Your task to perform on an android device: Open Amazon Image 0: 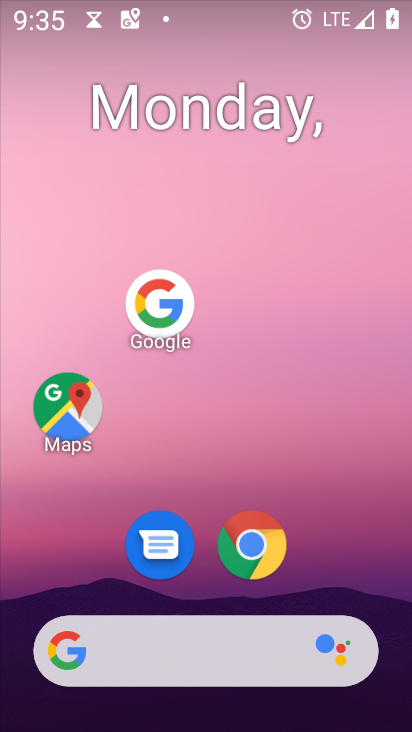
Step 0: press home button
Your task to perform on an android device: Open Amazon Image 1: 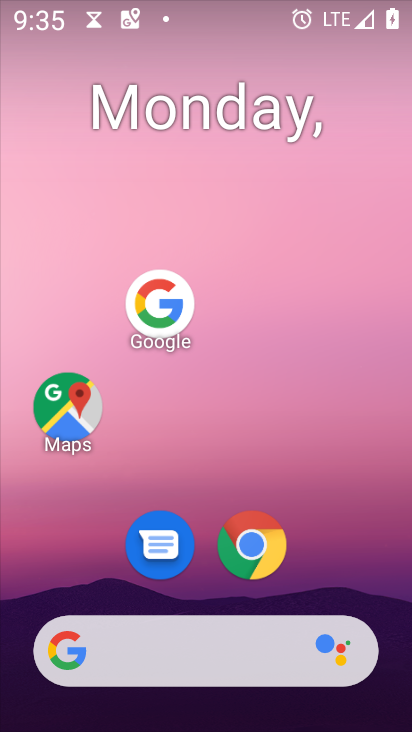
Step 1: click (254, 562)
Your task to perform on an android device: Open Amazon Image 2: 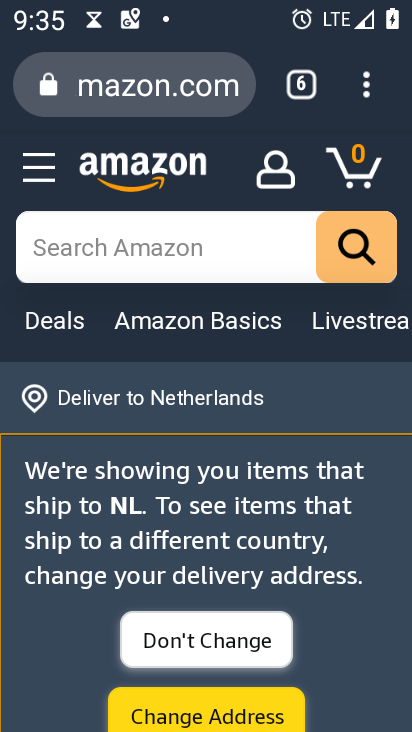
Step 2: task complete